Your task to perform on an android device: Go to eBay Image 0: 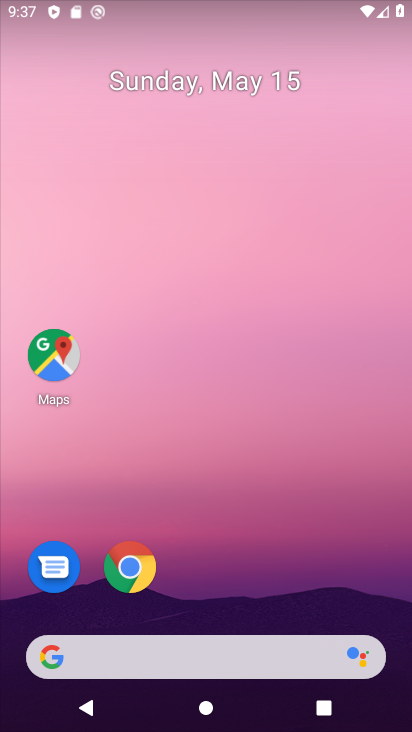
Step 0: drag from (241, 556) to (282, 40)
Your task to perform on an android device: Go to eBay Image 1: 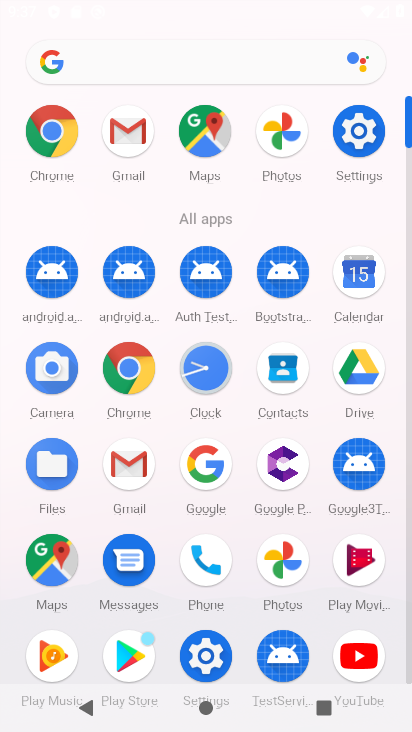
Step 1: click (213, 466)
Your task to perform on an android device: Go to eBay Image 2: 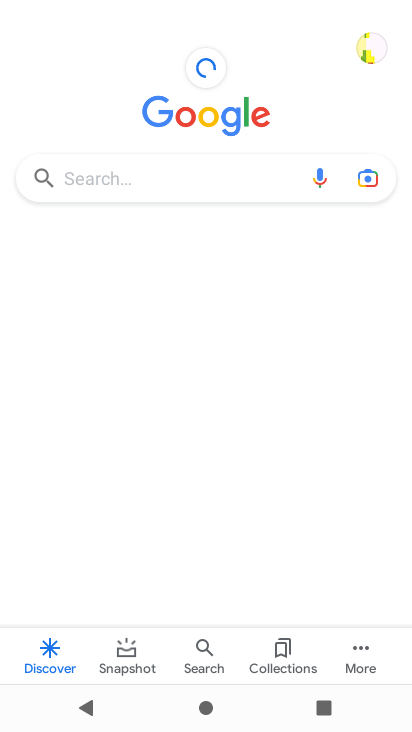
Step 2: click (153, 177)
Your task to perform on an android device: Go to eBay Image 3: 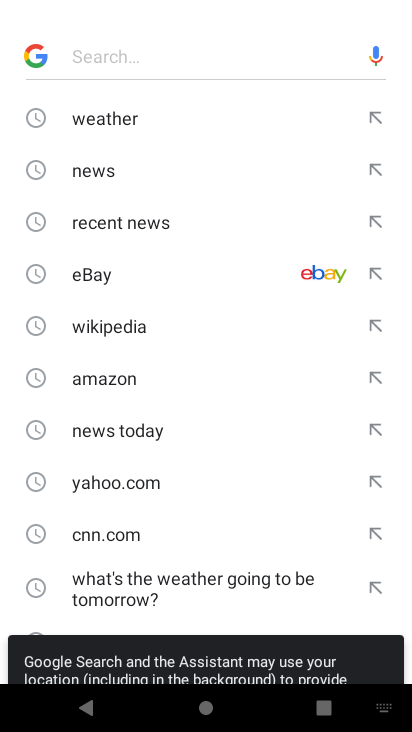
Step 3: click (102, 261)
Your task to perform on an android device: Go to eBay Image 4: 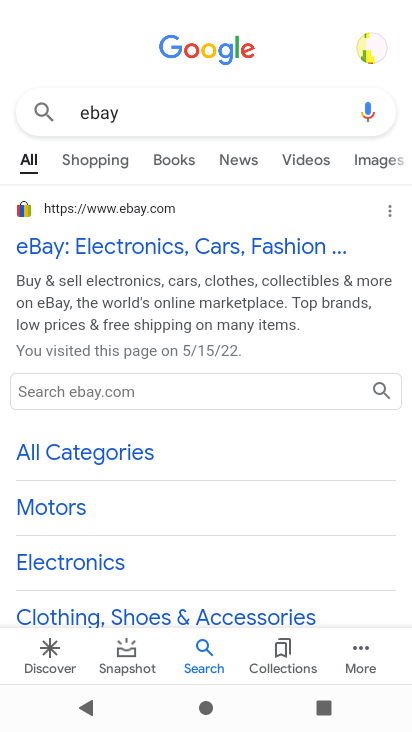
Step 4: task complete